Your task to perform on an android device: find snoozed emails in the gmail app Image 0: 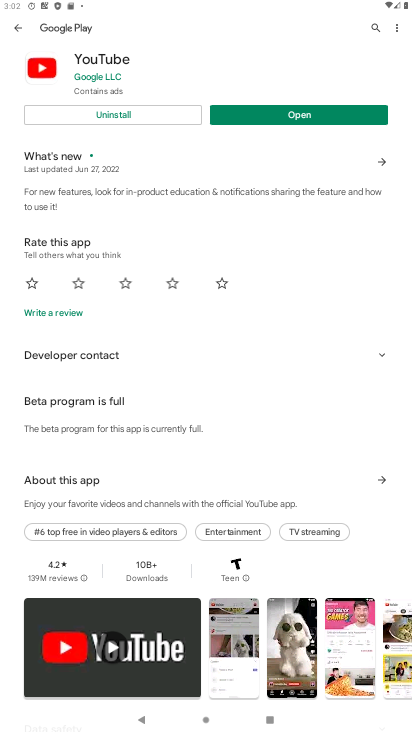
Step 0: press home button
Your task to perform on an android device: find snoozed emails in the gmail app Image 1: 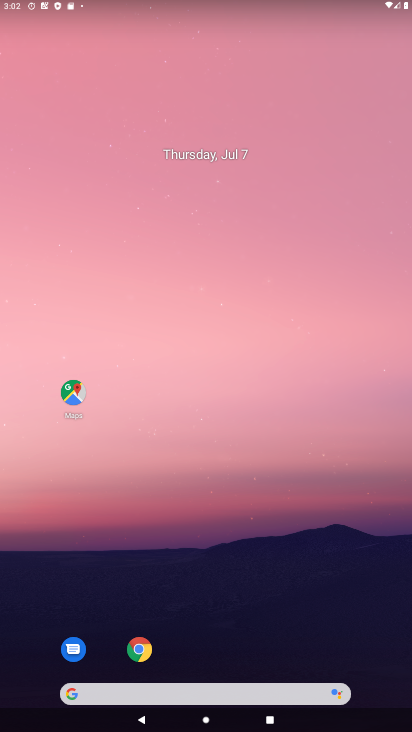
Step 1: drag from (228, 667) to (254, 58)
Your task to perform on an android device: find snoozed emails in the gmail app Image 2: 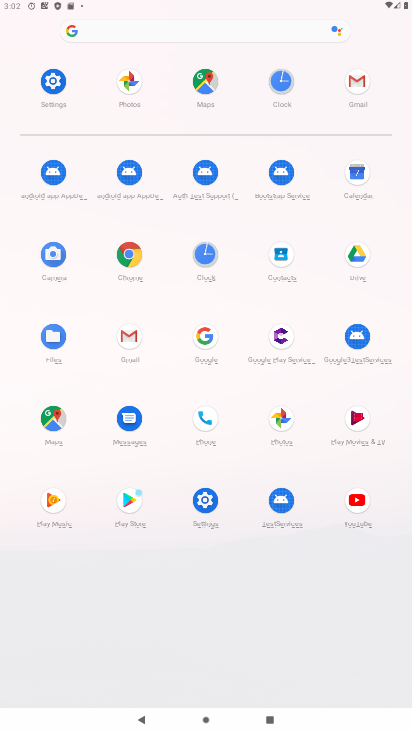
Step 2: click (118, 336)
Your task to perform on an android device: find snoozed emails in the gmail app Image 3: 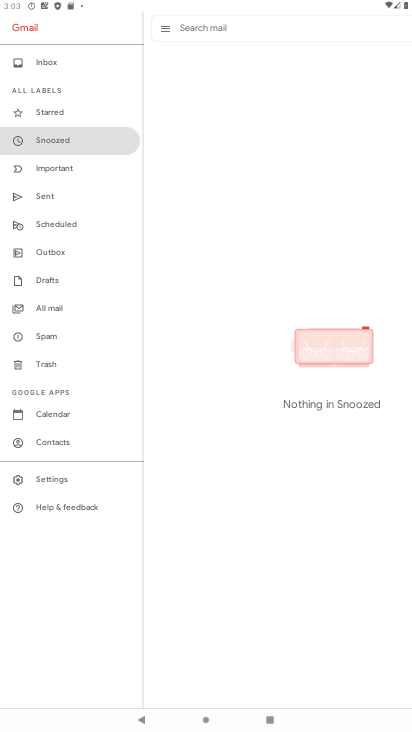
Step 3: click (56, 143)
Your task to perform on an android device: find snoozed emails in the gmail app Image 4: 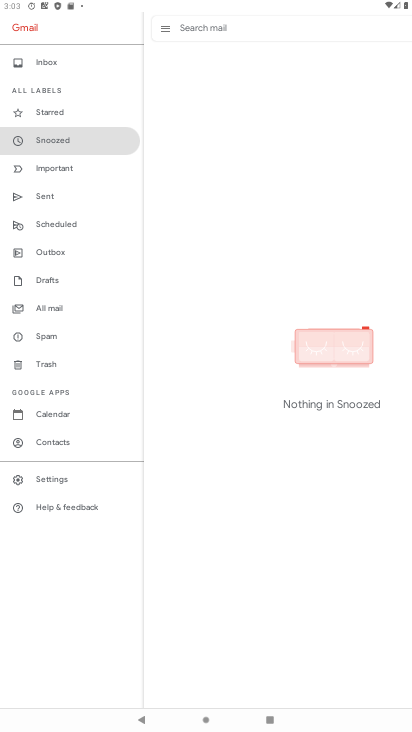
Step 4: task complete